Your task to perform on an android device: Open Chrome and go to settings Image 0: 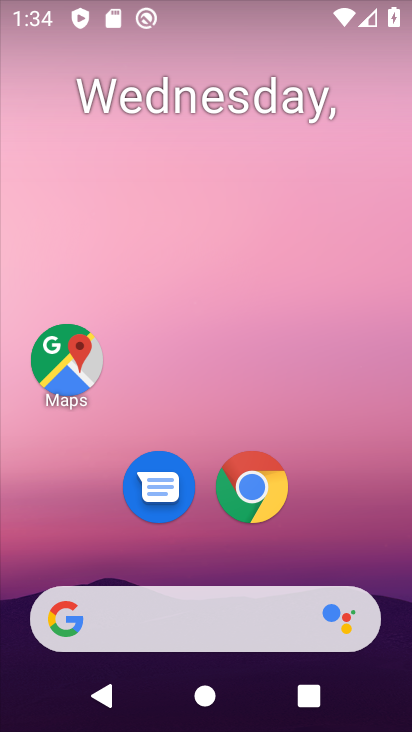
Step 0: click (261, 486)
Your task to perform on an android device: Open Chrome and go to settings Image 1: 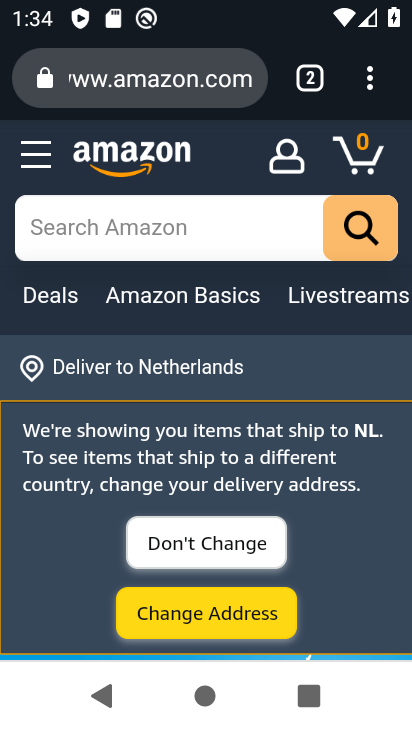
Step 1: click (370, 73)
Your task to perform on an android device: Open Chrome and go to settings Image 2: 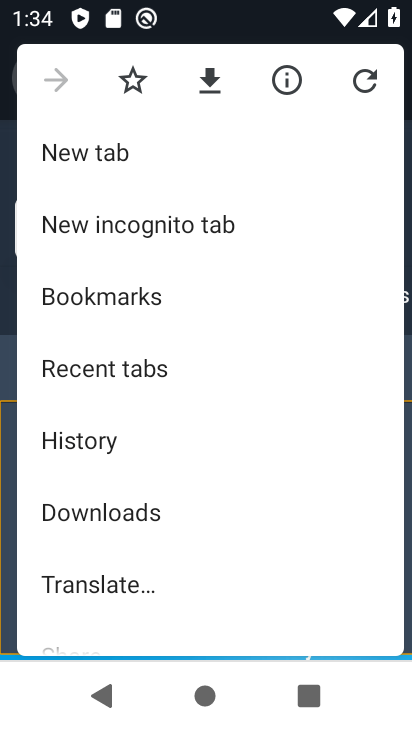
Step 2: drag from (238, 481) to (171, 165)
Your task to perform on an android device: Open Chrome and go to settings Image 3: 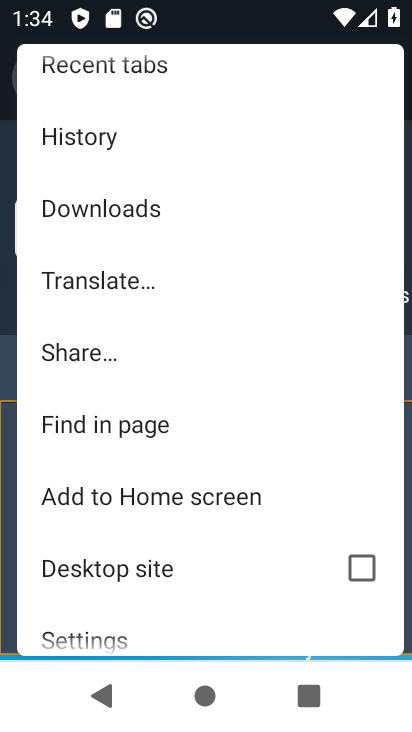
Step 3: drag from (266, 453) to (229, 178)
Your task to perform on an android device: Open Chrome and go to settings Image 4: 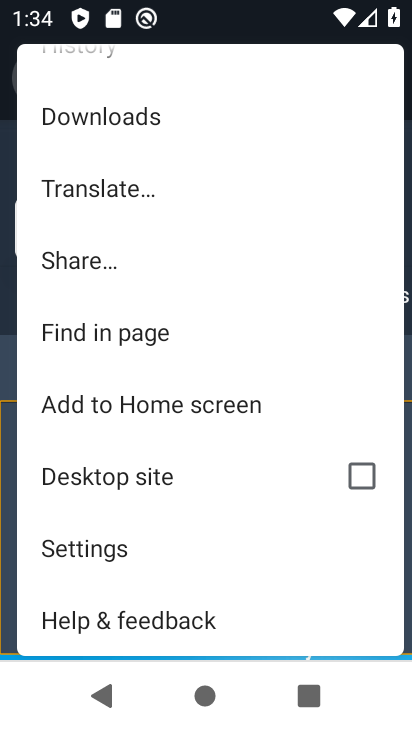
Step 4: drag from (208, 543) to (181, 319)
Your task to perform on an android device: Open Chrome and go to settings Image 5: 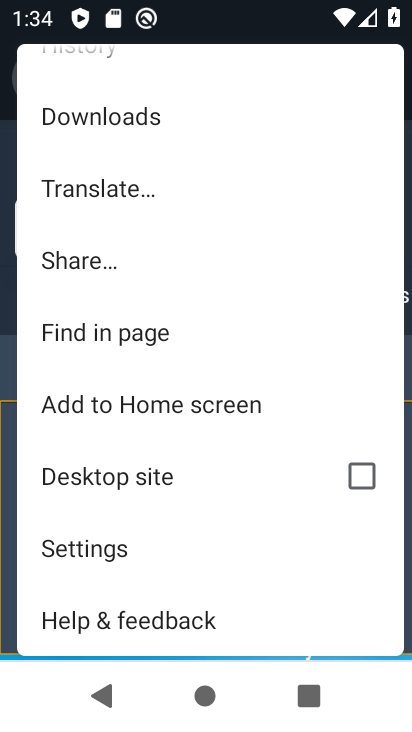
Step 5: click (98, 546)
Your task to perform on an android device: Open Chrome and go to settings Image 6: 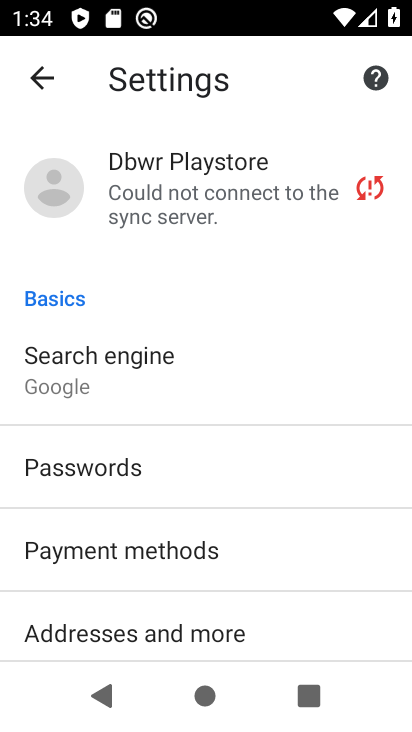
Step 6: task complete